Your task to perform on an android device: toggle notifications settings in the gmail app Image 0: 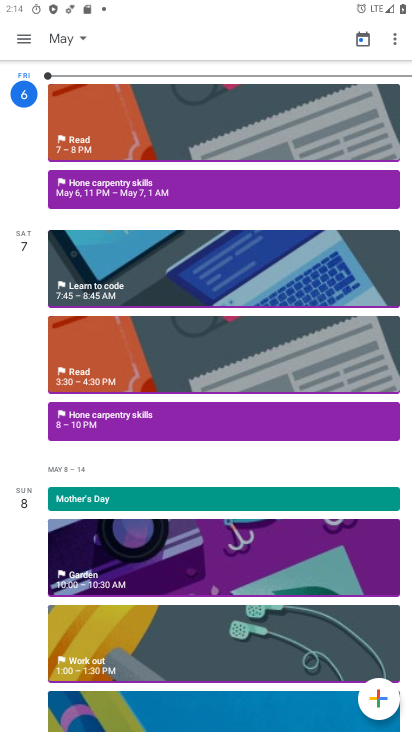
Step 0: press home button
Your task to perform on an android device: toggle notifications settings in the gmail app Image 1: 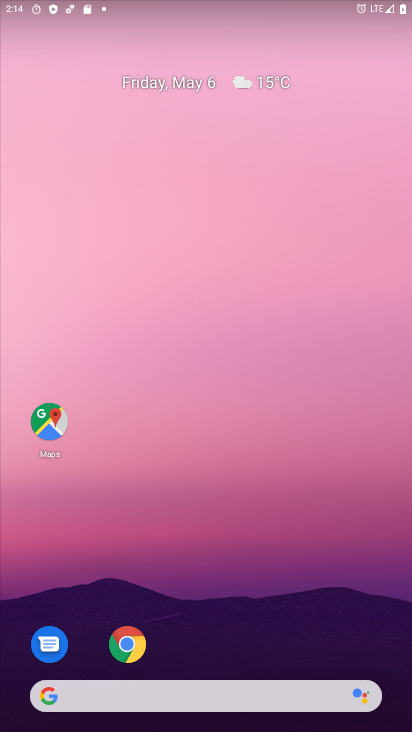
Step 1: drag from (236, 641) to (195, 4)
Your task to perform on an android device: toggle notifications settings in the gmail app Image 2: 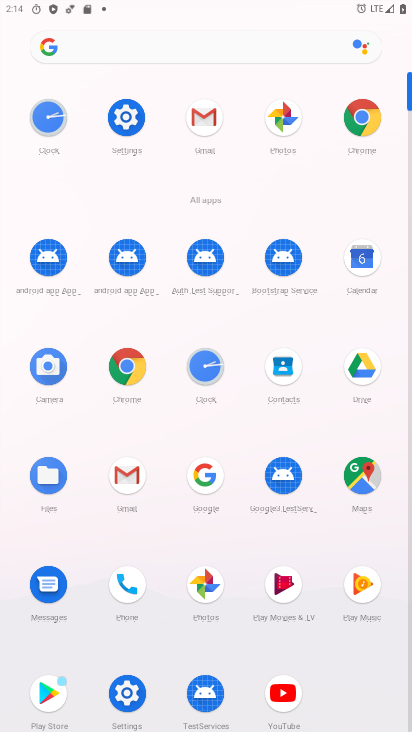
Step 2: click (206, 131)
Your task to perform on an android device: toggle notifications settings in the gmail app Image 3: 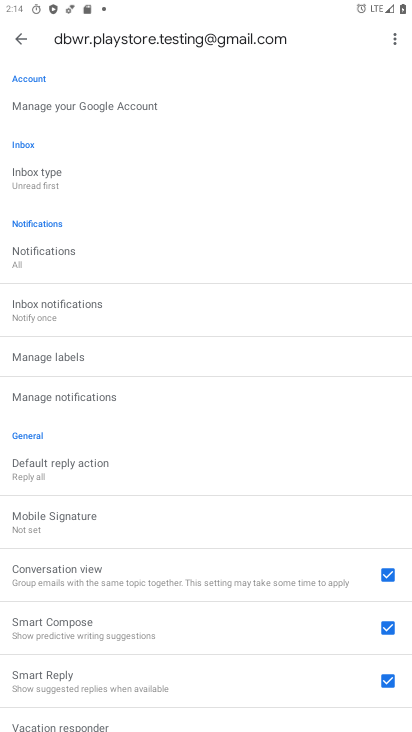
Step 3: click (101, 389)
Your task to perform on an android device: toggle notifications settings in the gmail app Image 4: 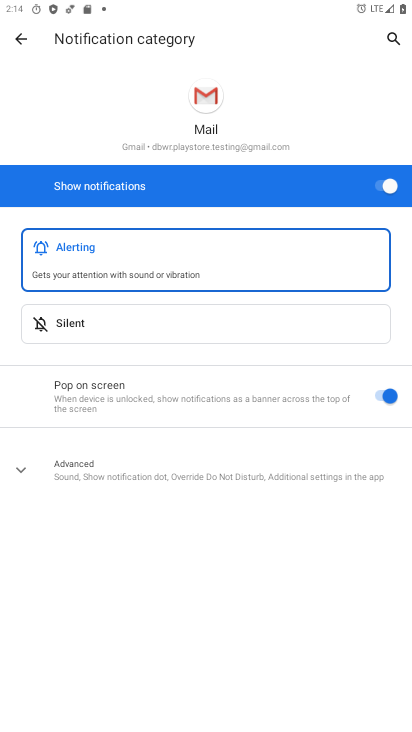
Step 4: click (355, 317)
Your task to perform on an android device: toggle notifications settings in the gmail app Image 5: 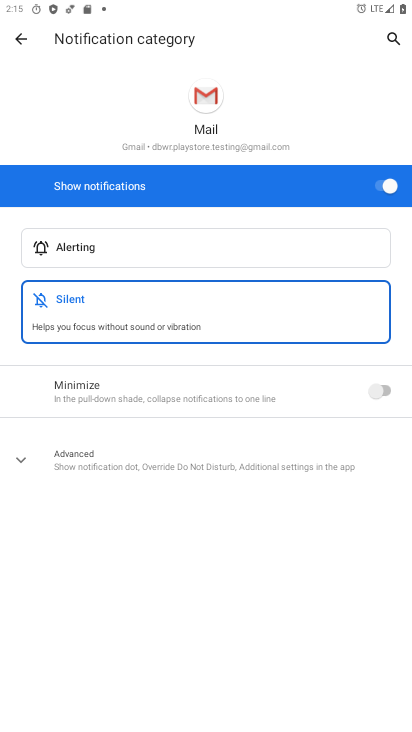
Step 5: click (393, 393)
Your task to perform on an android device: toggle notifications settings in the gmail app Image 6: 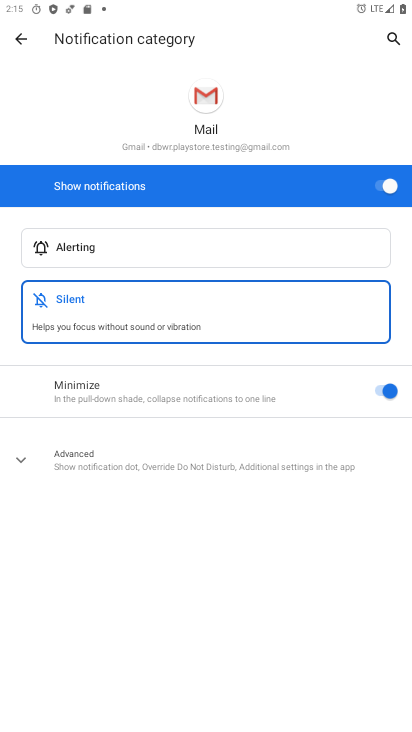
Step 6: task complete